Your task to perform on an android device: Go to battery settings Image 0: 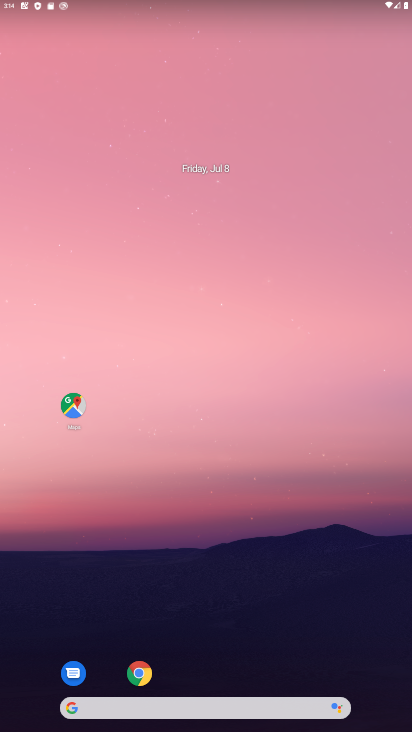
Step 0: drag from (230, 645) to (256, 7)
Your task to perform on an android device: Go to battery settings Image 1: 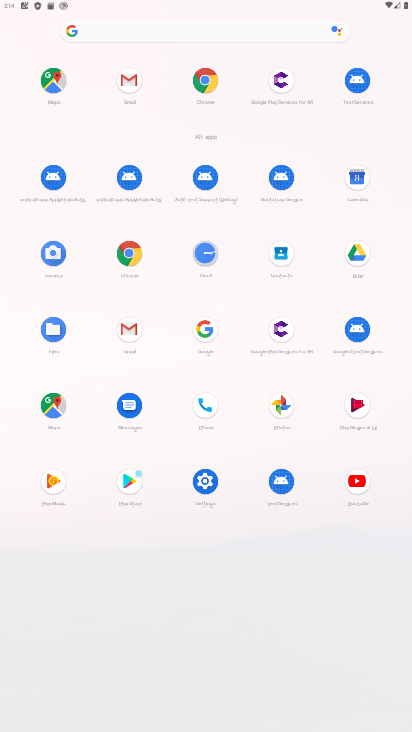
Step 1: click (210, 490)
Your task to perform on an android device: Go to battery settings Image 2: 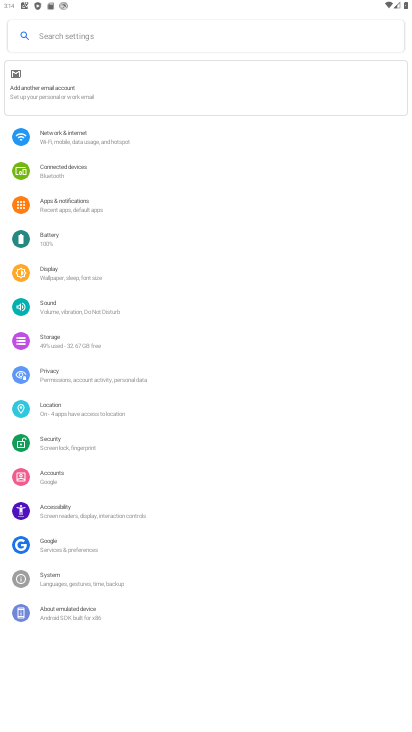
Step 2: click (64, 240)
Your task to perform on an android device: Go to battery settings Image 3: 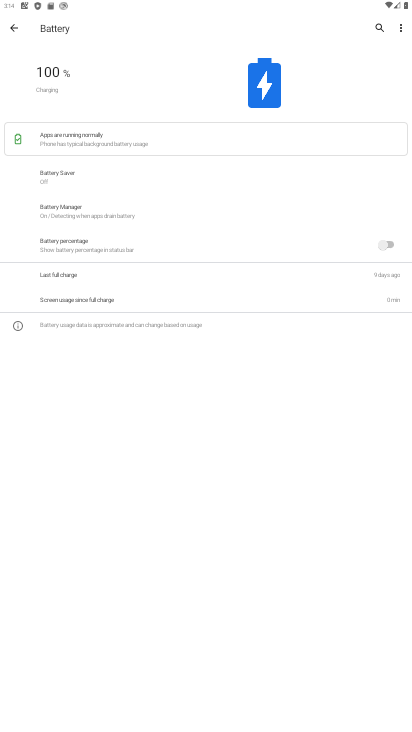
Step 3: click (63, 317)
Your task to perform on an android device: Go to battery settings Image 4: 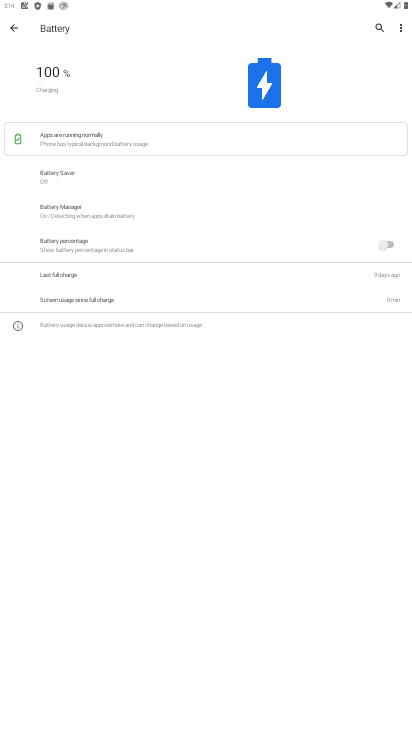
Step 4: task complete